Your task to perform on an android device: turn on showing notifications on the lock screen Image 0: 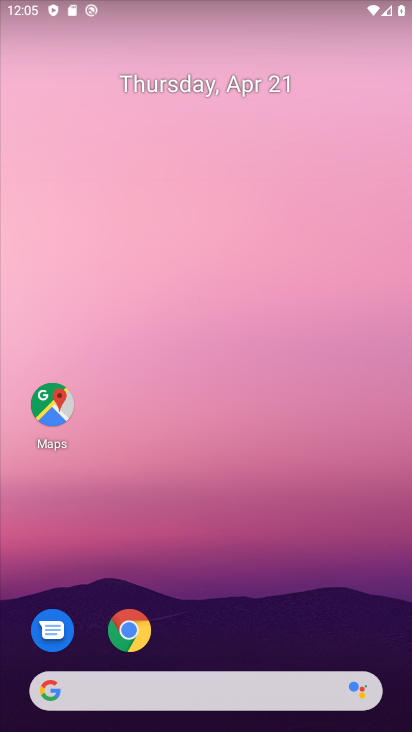
Step 0: drag from (281, 496) to (333, 28)
Your task to perform on an android device: turn on showing notifications on the lock screen Image 1: 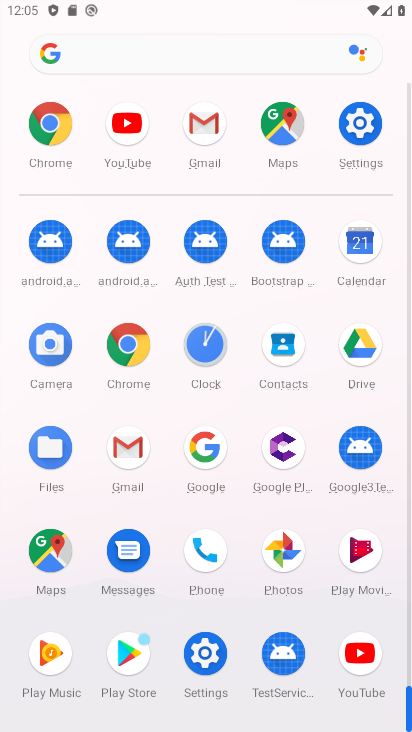
Step 1: click (347, 110)
Your task to perform on an android device: turn on showing notifications on the lock screen Image 2: 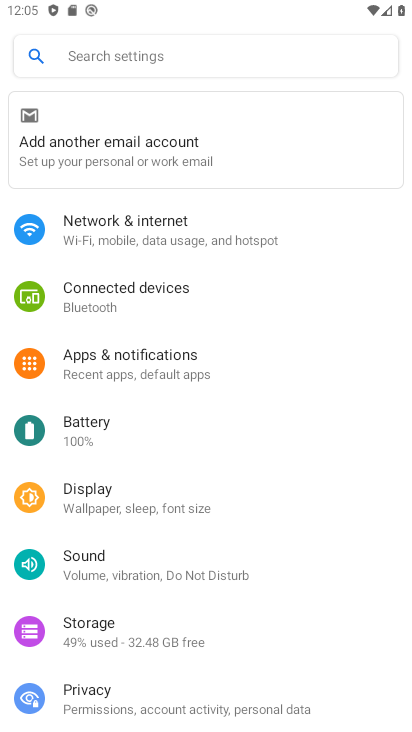
Step 2: click (146, 353)
Your task to perform on an android device: turn on showing notifications on the lock screen Image 3: 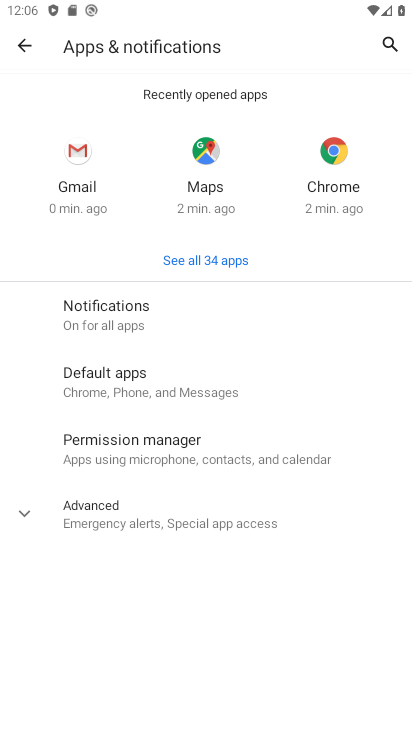
Step 3: click (115, 308)
Your task to perform on an android device: turn on showing notifications on the lock screen Image 4: 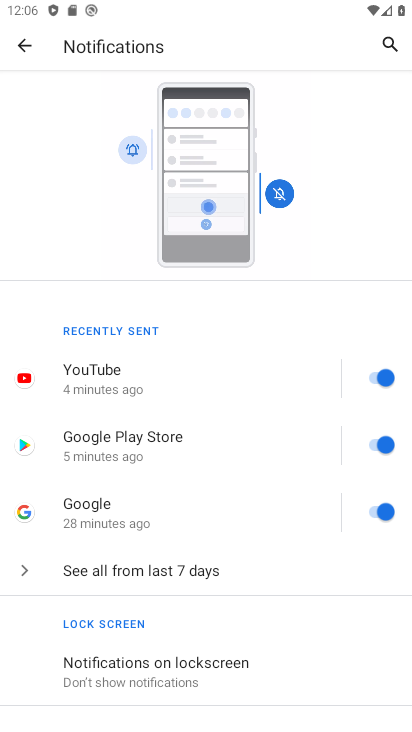
Step 4: drag from (230, 589) to (267, 285)
Your task to perform on an android device: turn on showing notifications on the lock screen Image 5: 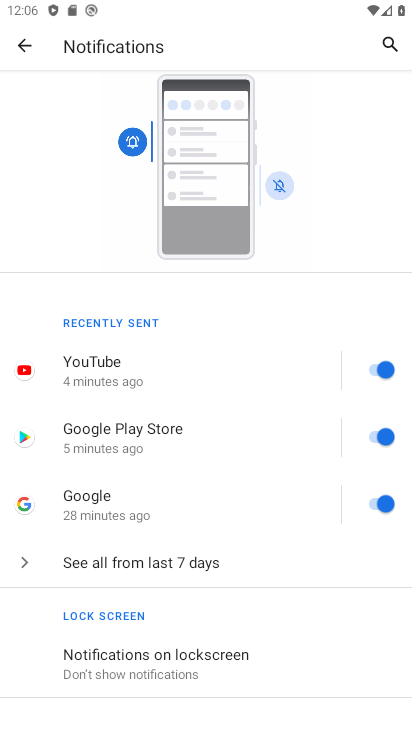
Step 5: click (166, 653)
Your task to perform on an android device: turn on showing notifications on the lock screen Image 6: 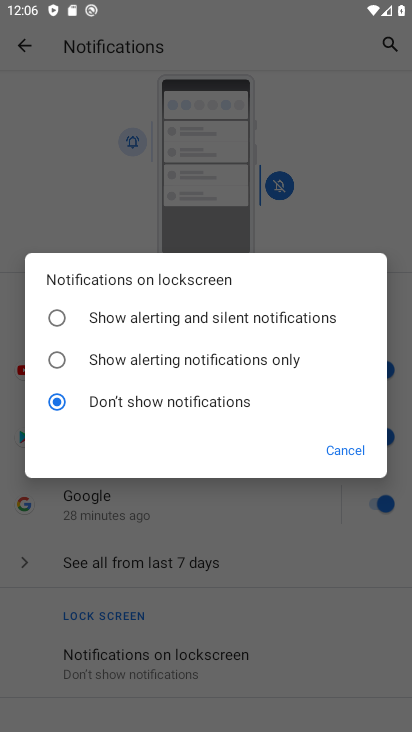
Step 6: click (253, 565)
Your task to perform on an android device: turn on showing notifications on the lock screen Image 7: 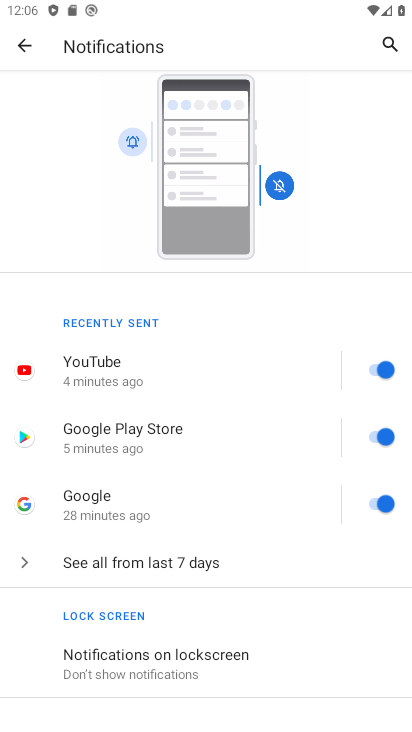
Step 7: click (181, 670)
Your task to perform on an android device: turn on showing notifications on the lock screen Image 8: 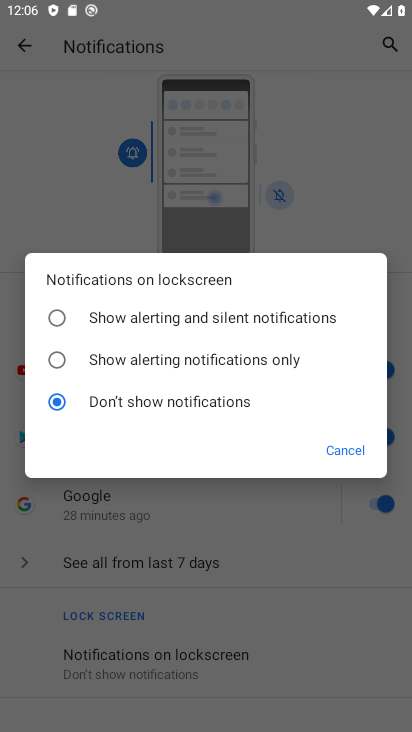
Step 8: click (56, 363)
Your task to perform on an android device: turn on showing notifications on the lock screen Image 9: 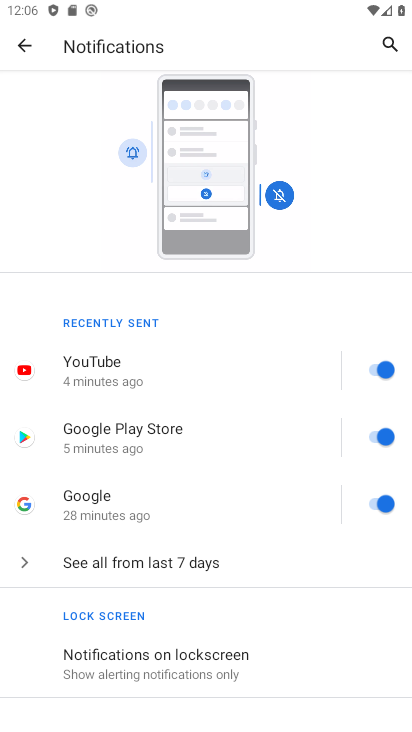
Step 9: task complete